Your task to perform on an android device: See recent photos Image 0: 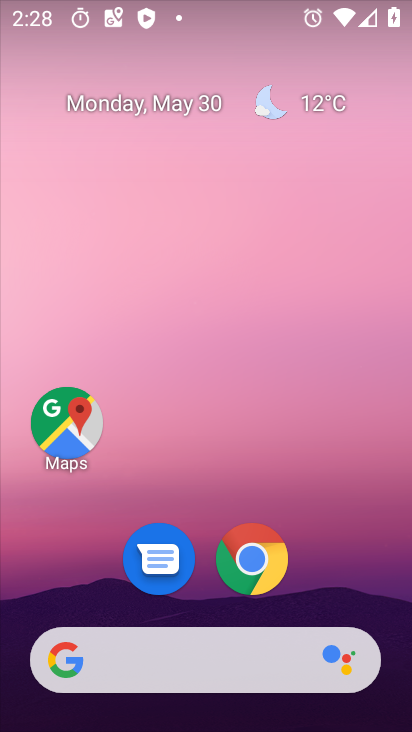
Step 0: drag from (212, 522) to (212, 166)
Your task to perform on an android device: See recent photos Image 1: 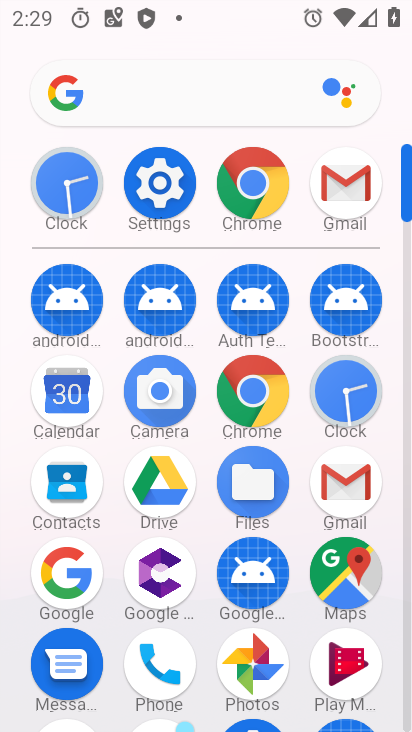
Step 1: click (252, 666)
Your task to perform on an android device: See recent photos Image 2: 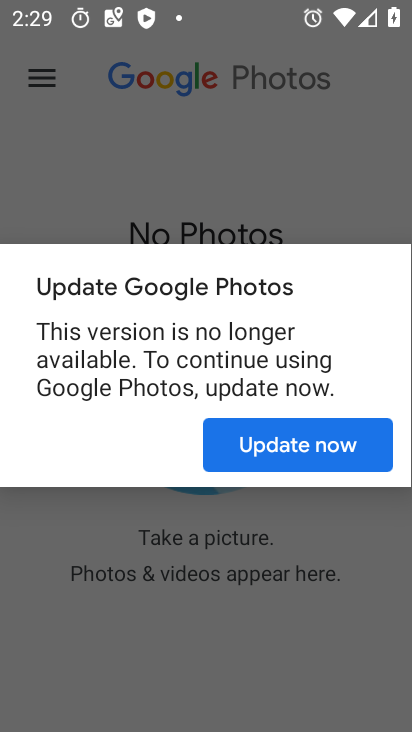
Step 2: click (271, 435)
Your task to perform on an android device: See recent photos Image 3: 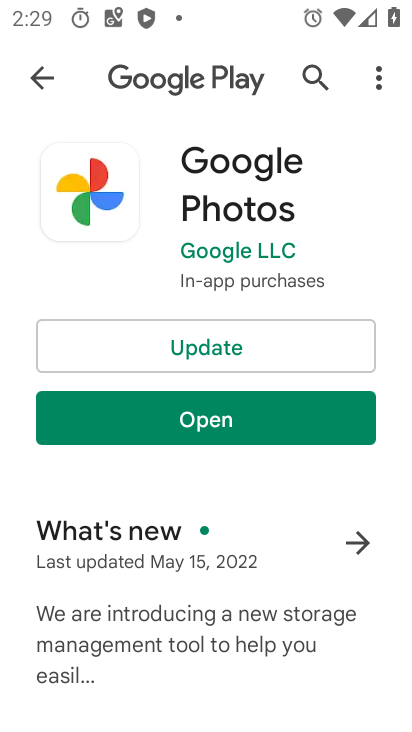
Step 3: click (201, 426)
Your task to perform on an android device: See recent photos Image 4: 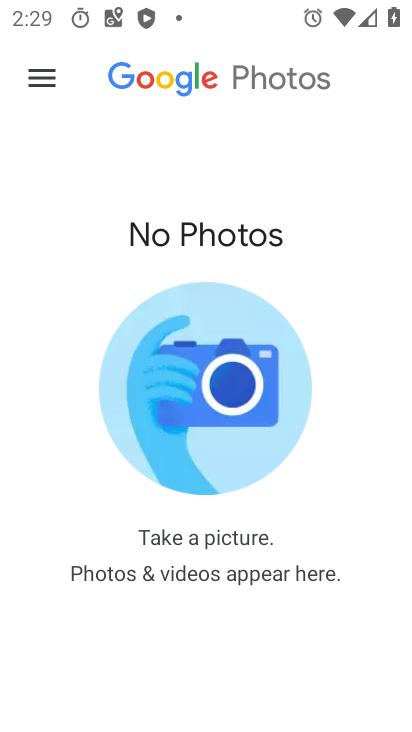
Step 4: task complete